Your task to perform on an android device: change text size in settings app Image 0: 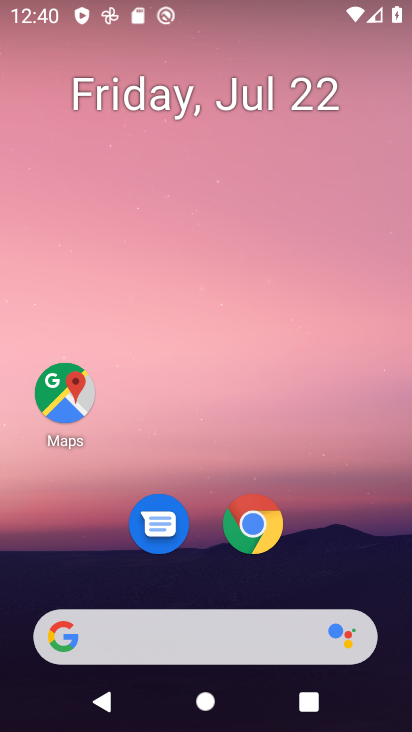
Step 0: press home button
Your task to perform on an android device: change text size in settings app Image 1: 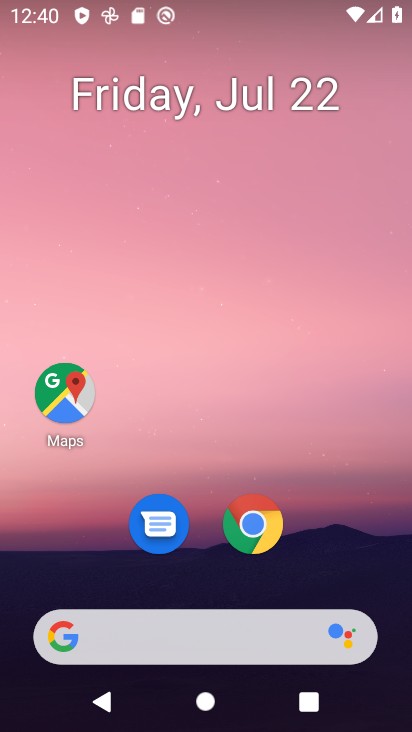
Step 1: drag from (191, 640) to (370, 35)
Your task to perform on an android device: change text size in settings app Image 2: 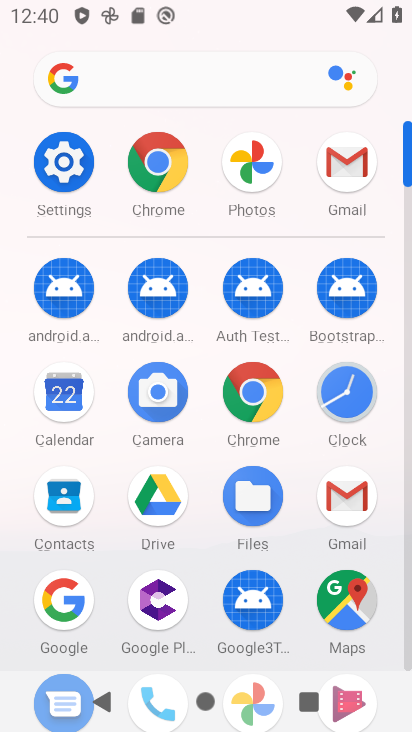
Step 2: click (74, 169)
Your task to perform on an android device: change text size in settings app Image 3: 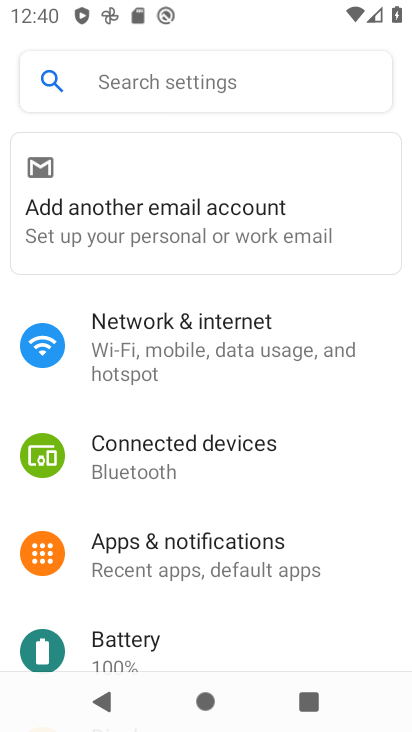
Step 3: drag from (170, 605) to (294, 263)
Your task to perform on an android device: change text size in settings app Image 4: 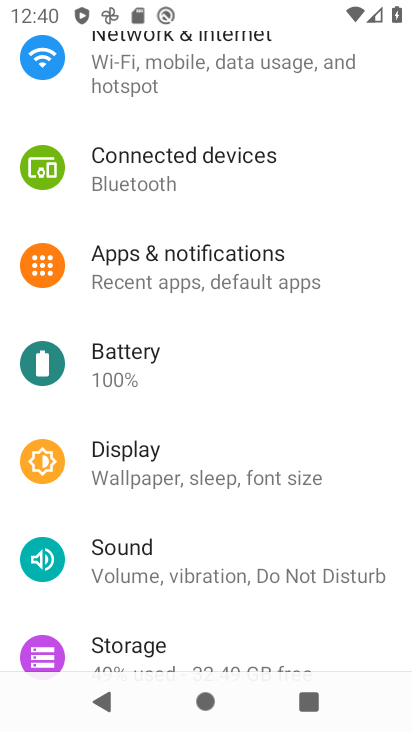
Step 4: click (183, 479)
Your task to perform on an android device: change text size in settings app Image 5: 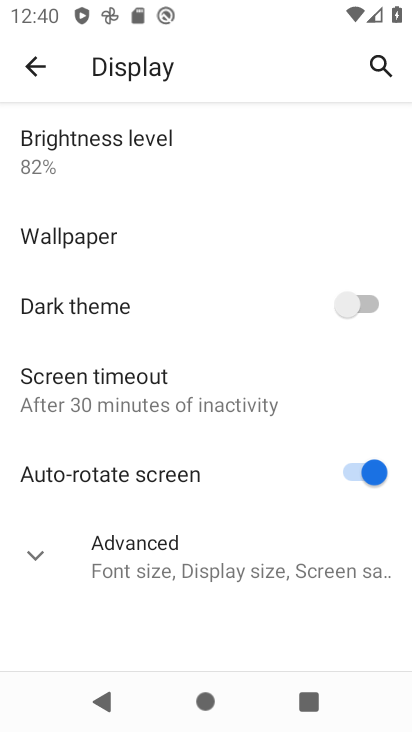
Step 5: click (149, 555)
Your task to perform on an android device: change text size in settings app Image 6: 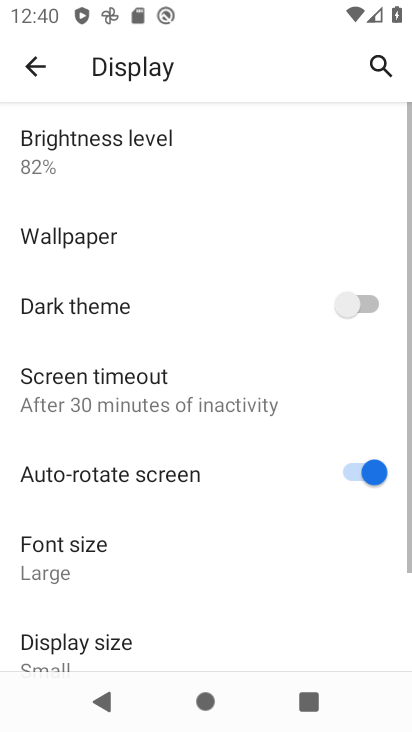
Step 6: click (85, 546)
Your task to perform on an android device: change text size in settings app Image 7: 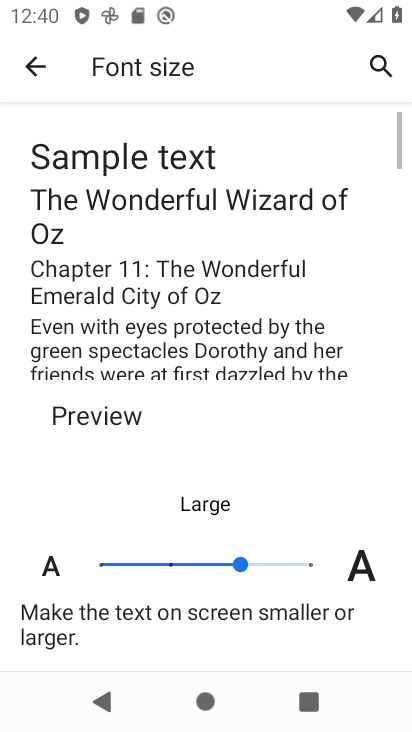
Step 7: click (167, 564)
Your task to perform on an android device: change text size in settings app Image 8: 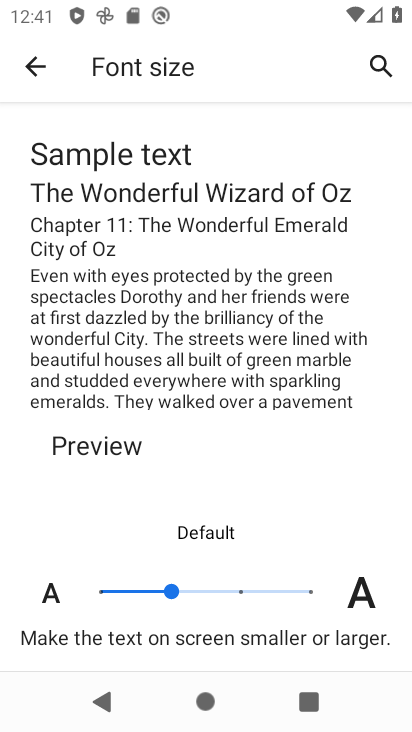
Step 8: task complete